Your task to perform on an android device: turn off translation in the chrome app Image 0: 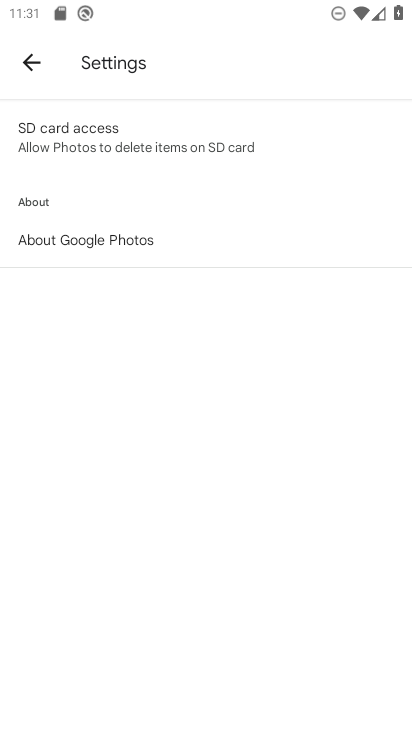
Step 0: click (27, 59)
Your task to perform on an android device: turn off translation in the chrome app Image 1: 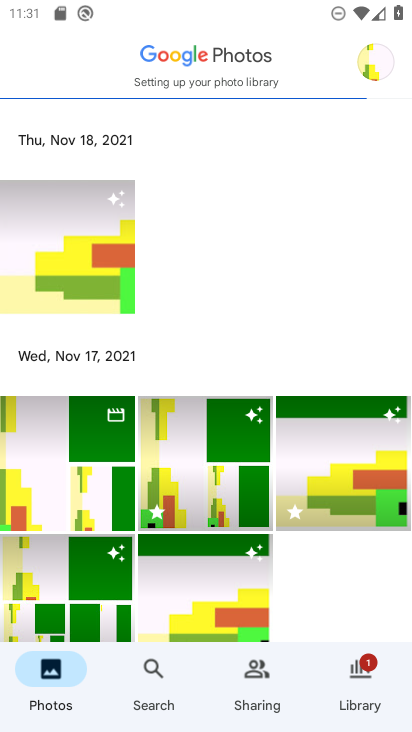
Step 1: press home button
Your task to perform on an android device: turn off translation in the chrome app Image 2: 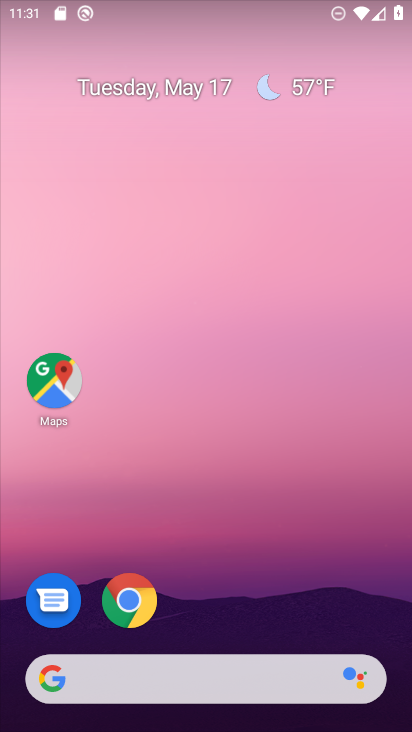
Step 2: drag from (324, 620) to (169, 6)
Your task to perform on an android device: turn off translation in the chrome app Image 3: 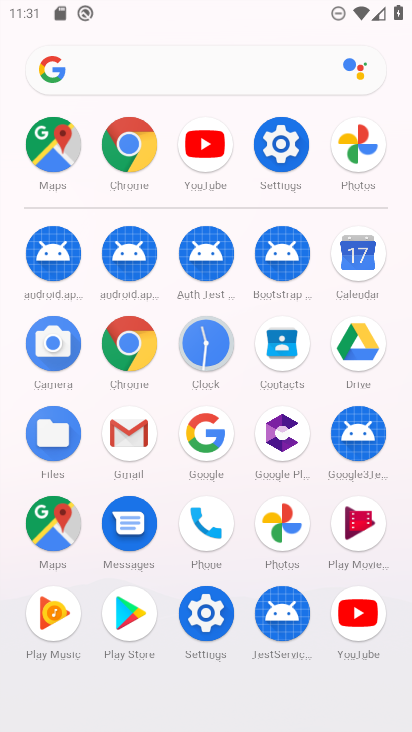
Step 3: click (129, 146)
Your task to perform on an android device: turn off translation in the chrome app Image 4: 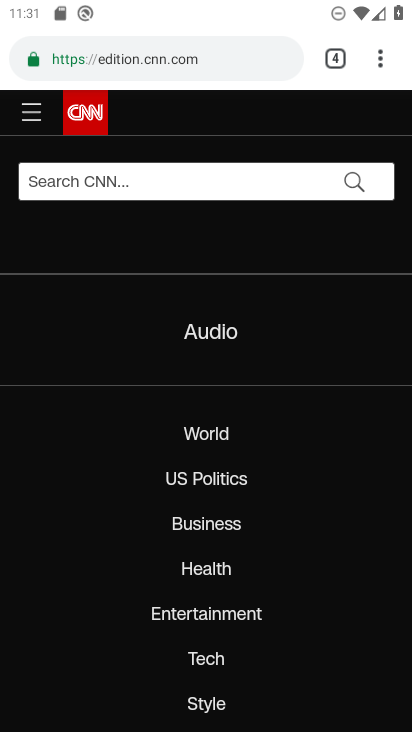
Step 4: drag from (375, 58) to (160, 621)
Your task to perform on an android device: turn off translation in the chrome app Image 5: 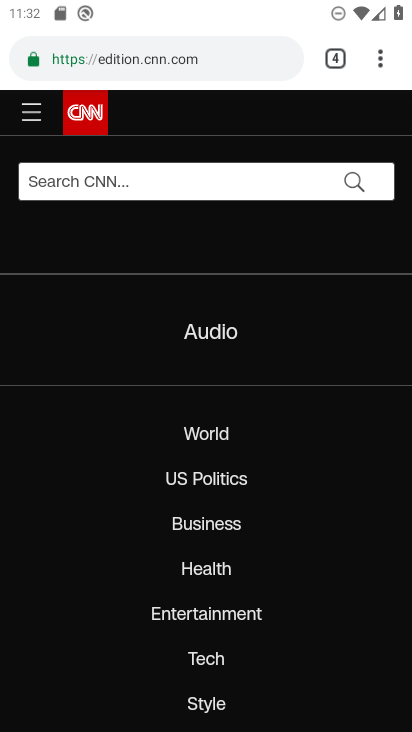
Step 5: click (160, 621)
Your task to perform on an android device: turn off translation in the chrome app Image 6: 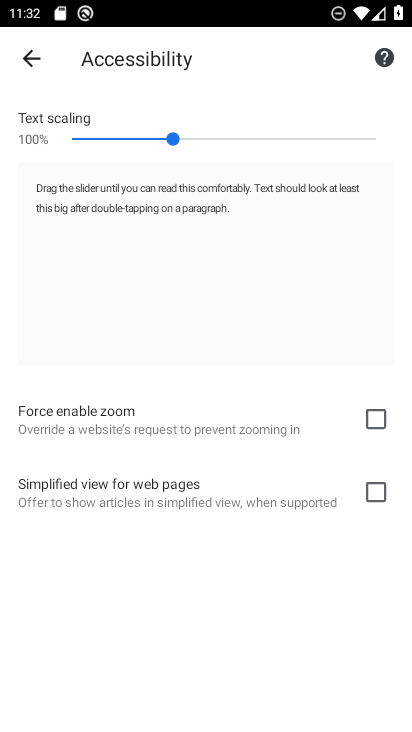
Step 6: click (55, 54)
Your task to perform on an android device: turn off translation in the chrome app Image 7: 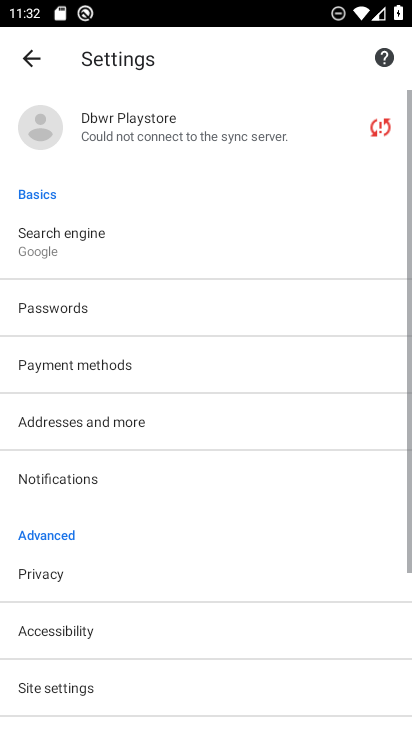
Step 7: click (28, 60)
Your task to perform on an android device: turn off translation in the chrome app Image 8: 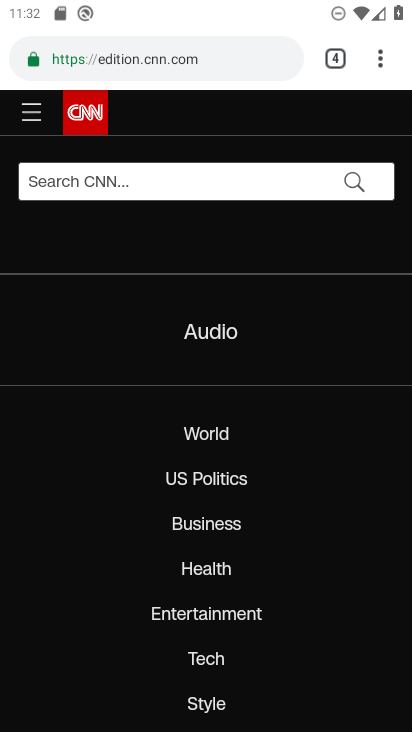
Step 8: drag from (379, 58) to (163, 626)
Your task to perform on an android device: turn off translation in the chrome app Image 9: 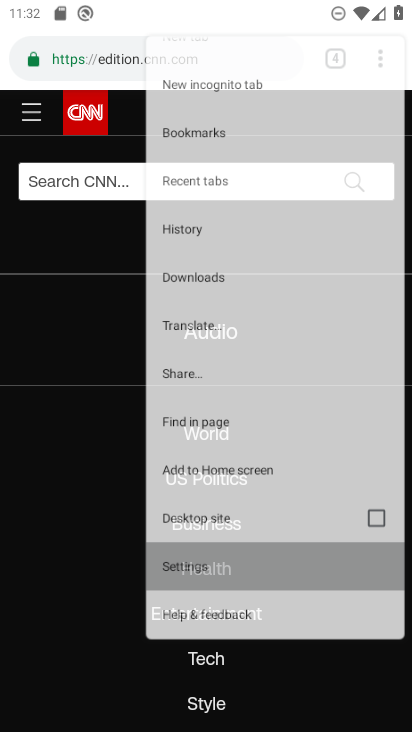
Step 9: click (163, 626)
Your task to perform on an android device: turn off translation in the chrome app Image 10: 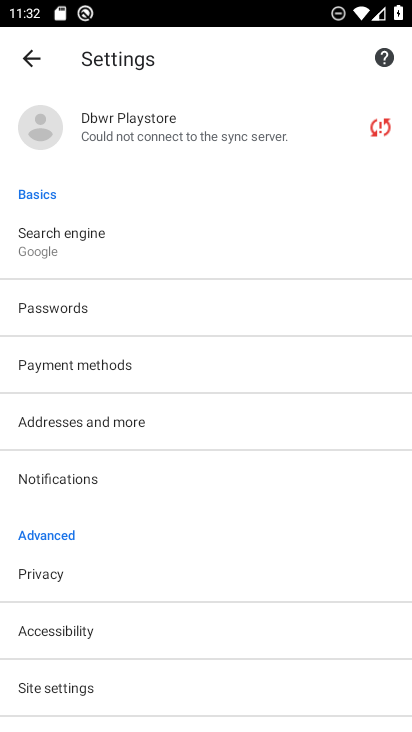
Step 10: click (51, 686)
Your task to perform on an android device: turn off translation in the chrome app Image 11: 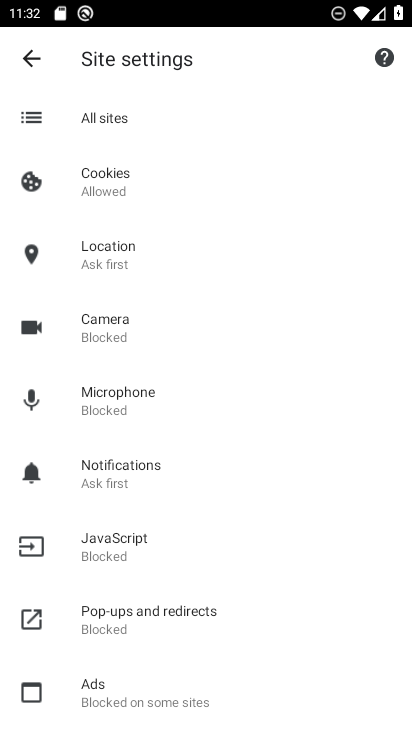
Step 11: click (32, 55)
Your task to perform on an android device: turn off translation in the chrome app Image 12: 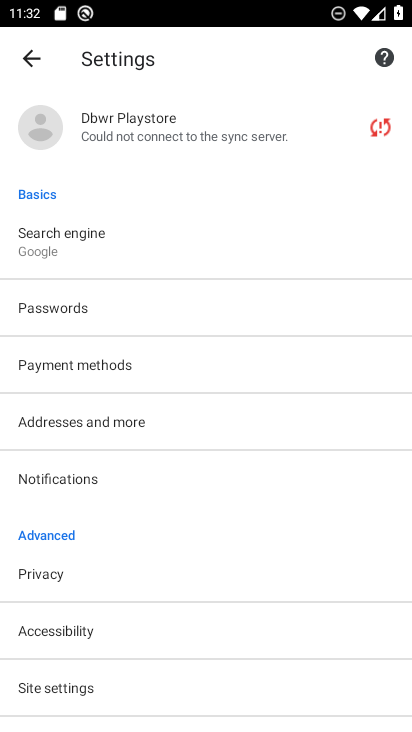
Step 12: drag from (79, 647) to (75, 323)
Your task to perform on an android device: turn off translation in the chrome app Image 13: 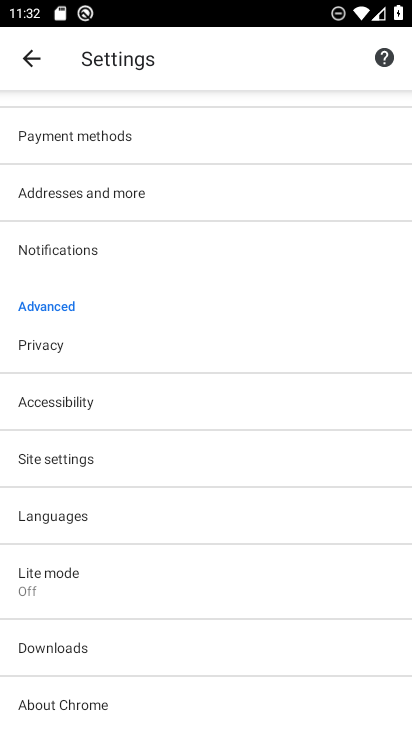
Step 13: click (51, 522)
Your task to perform on an android device: turn off translation in the chrome app Image 14: 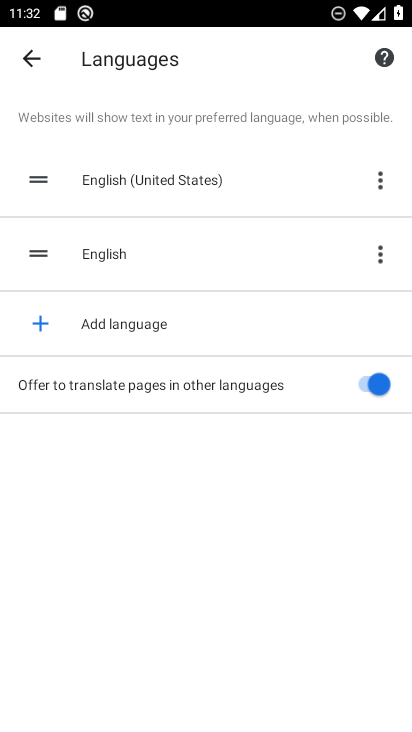
Step 14: click (376, 376)
Your task to perform on an android device: turn off translation in the chrome app Image 15: 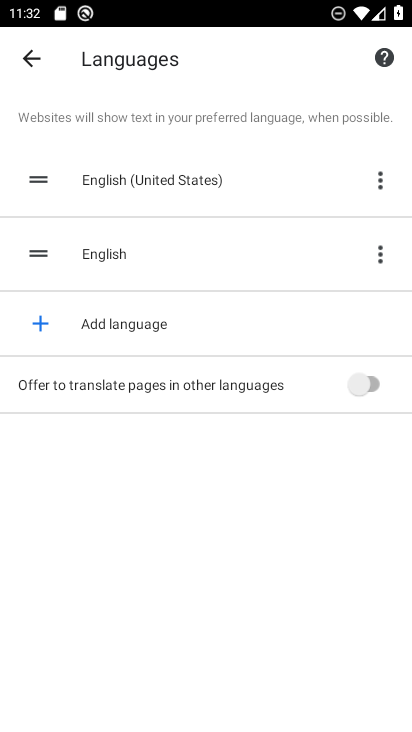
Step 15: task complete